Your task to perform on an android device: Open notification settings Image 0: 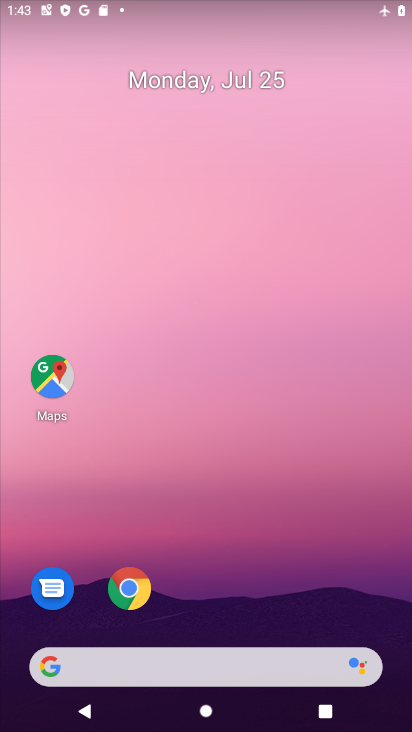
Step 0: drag from (199, 606) to (235, 153)
Your task to perform on an android device: Open notification settings Image 1: 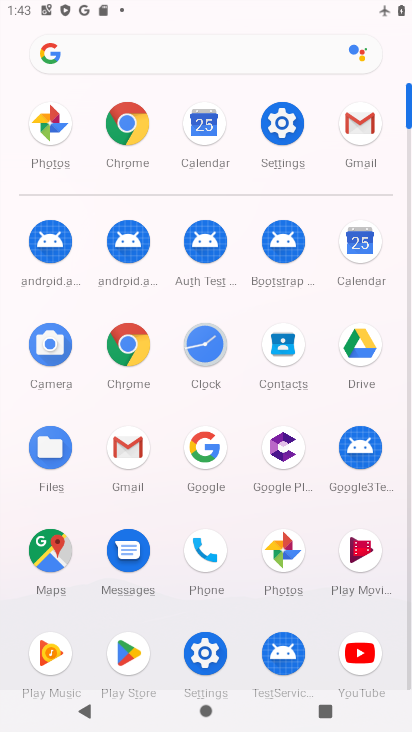
Step 1: click (276, 122)
Your task to perform on an android device: Open notification settings Image 2: 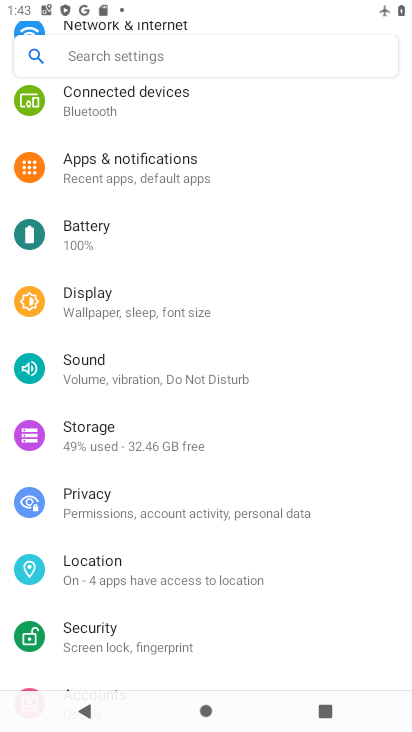
Step 2: click (198, 170)
Your task to perform on an android device: Open notification settings Image 3: 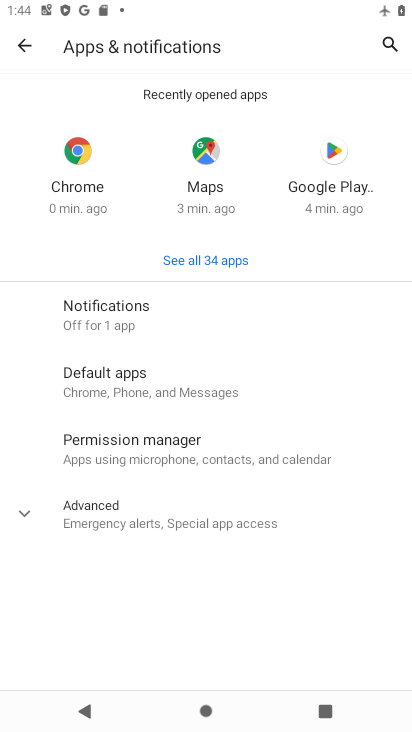
Step 3: click (125, 317)
Your task to perform on an android device: Open notification settings Image 4: 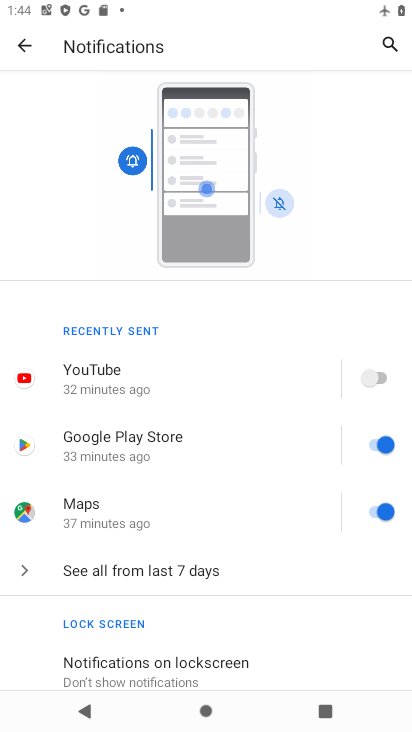
Step 4: task complete